Your task to perform on an android device: change the clock display to digital Image 0: 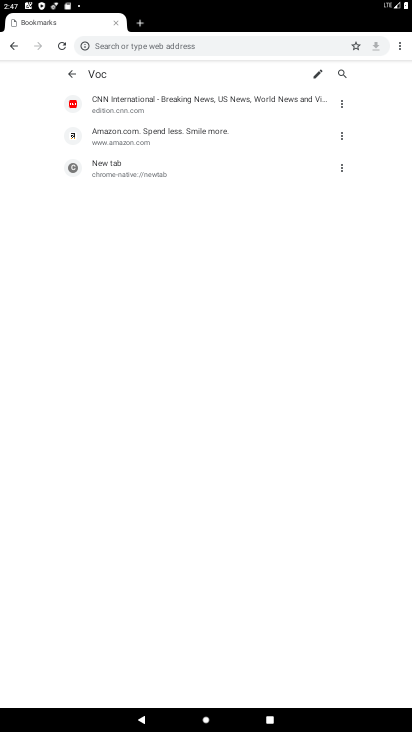
Step 0: press home button
Your task to perform on an android device: change the clock display to digital Image 1: 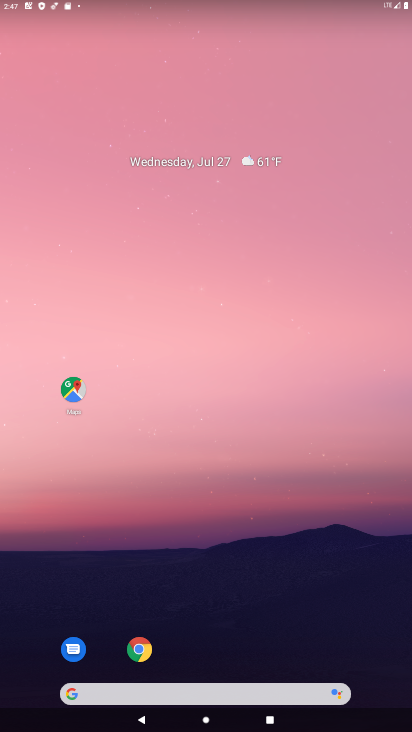
Step 1: drag from (199, 613) to (208, 84)
Your task to perform on an android device: change the clock display to digital Image 2: 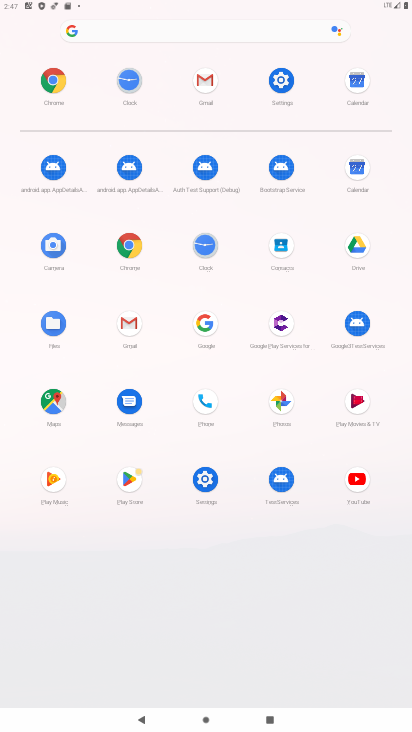
Step 2: click (194, 251)
Your task to perform on an android device: change the clock display to digital Image 3: 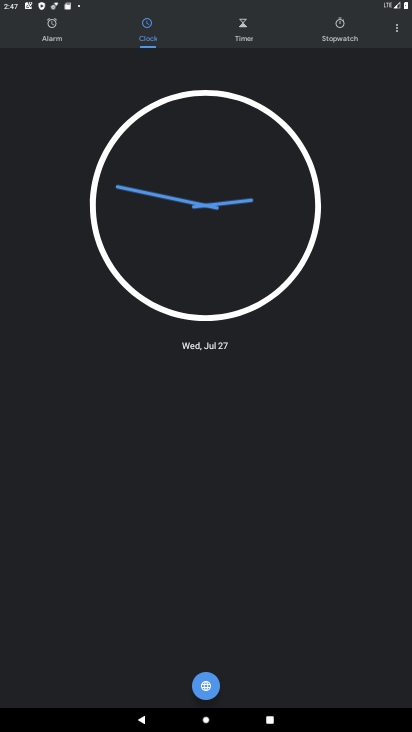
Step 3: click (399, 33)
Your task to perform on an android device: change the clock display to digital Image 4: 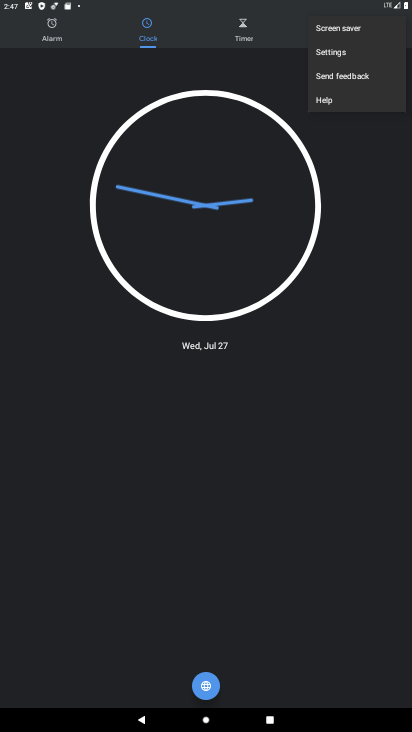
Step 4: click (338, 55)
Your task to perform on an android device: change the clock display to digital Image 5: 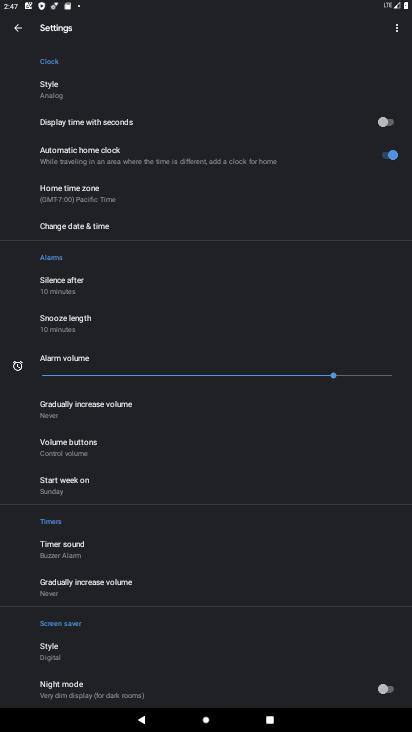
Step 5: click (46, 87)
Your task to perform on an android device: change the clock display to digital Image 6: 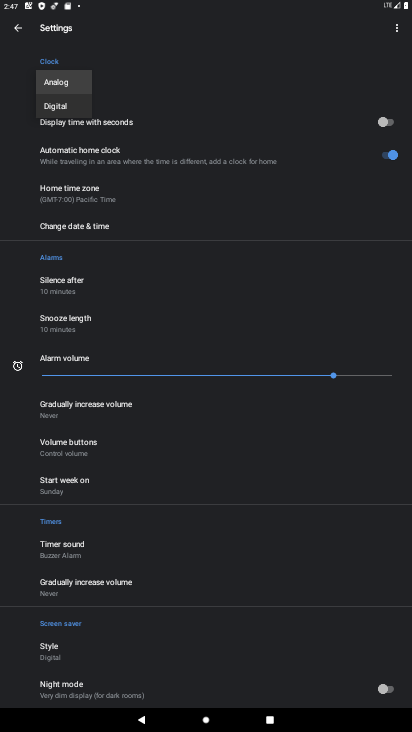
Step 6: click (58, 109)
Your task to perform on an android device: change the clock display to digital Image 7: 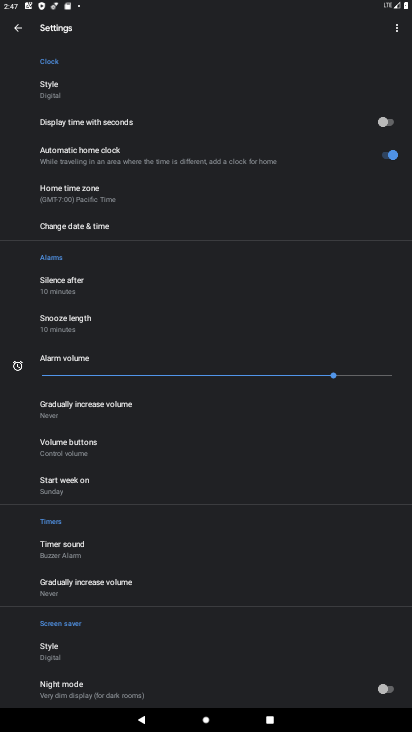
Step 7: task complete